Your task to perform on an android device: snooze an email in the gmail app Image 0: 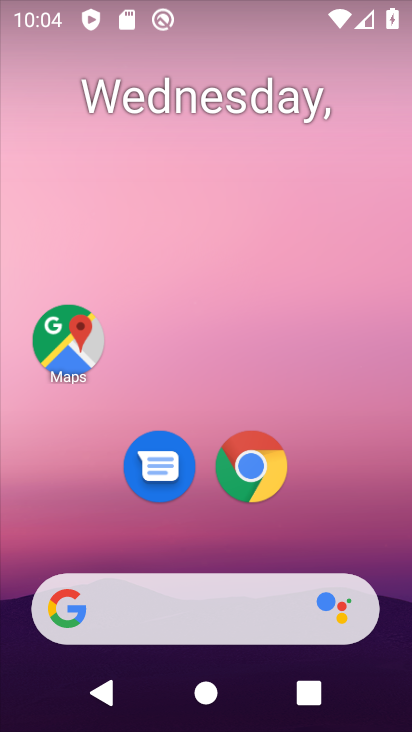
Step 0: drag from (229, 725) to (256, 88)
Your task to perform on an android device: snooze an email in the gmail app Image 1: 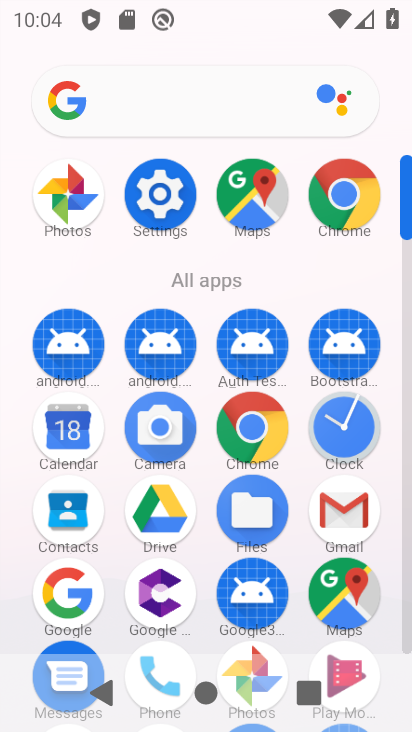
Step 1: click (341, 503)
Your task to perform on an android device: snooze an email in the gmail app Image 2: 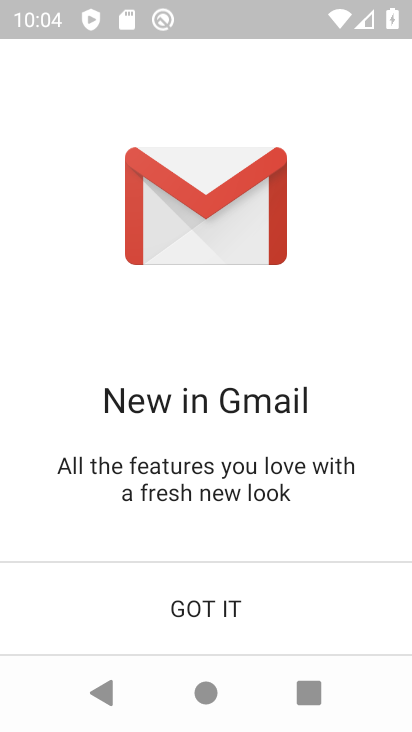
Step 2: click (220, 604)
Your task to perform on an android device: snooze an email in the gmail app Image 3: 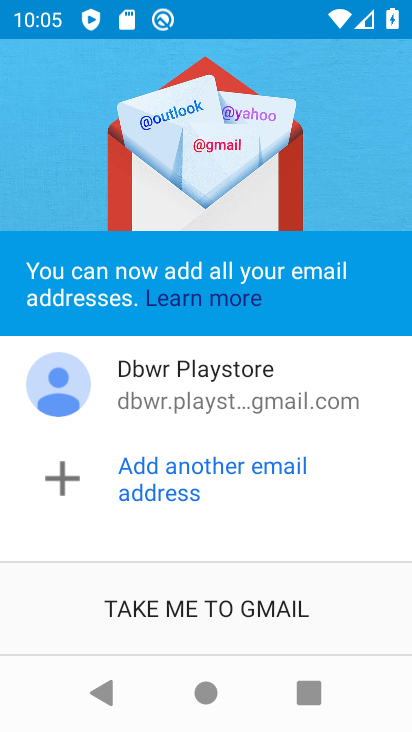
Step 3: click (215, 605)
Your task to perform on an android device: snooze an email in the gmail app Image 4: 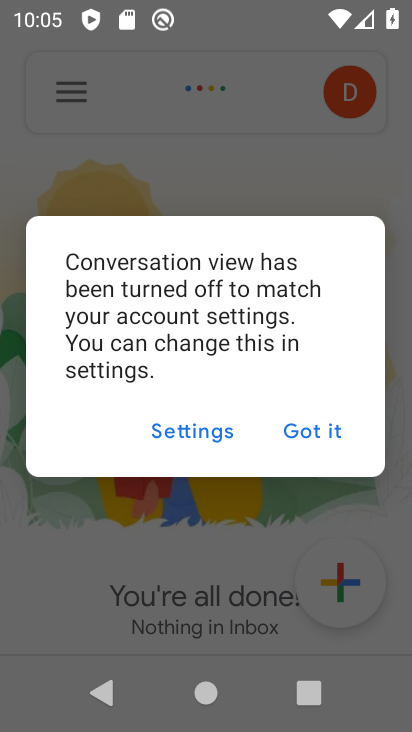
Step 4: click (302, 432)
Your task to perform on an android device: snooze an email in the gmail app Image 5: 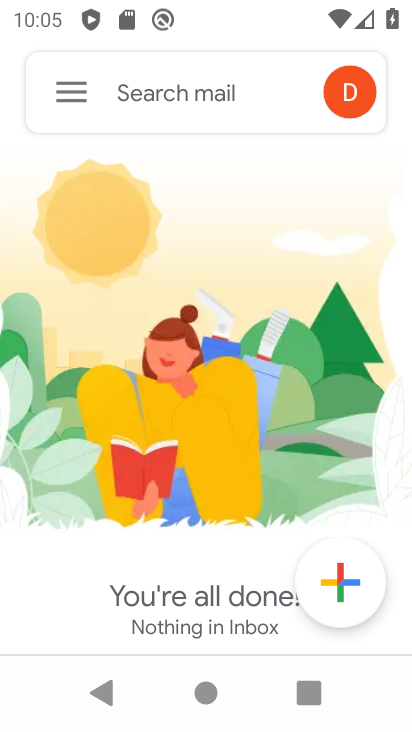
Step 5: click (55, 90)
Your task to perform on an android device: snooze an email in the gmail app Image 6: 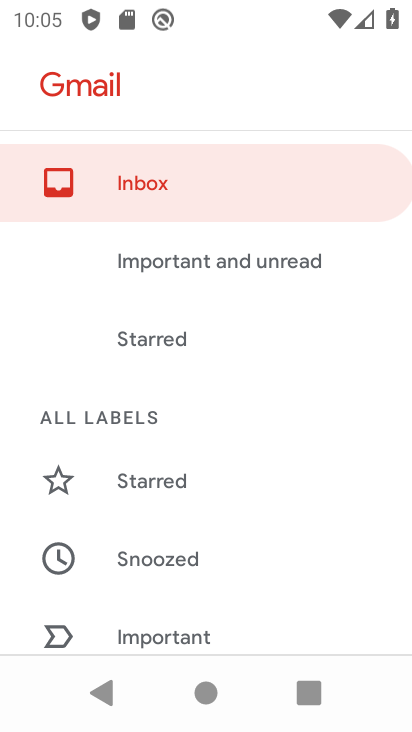
Step 6: click (138, 181)
Your task to perform on an android device: snooze an email in the gmail app Image 7: 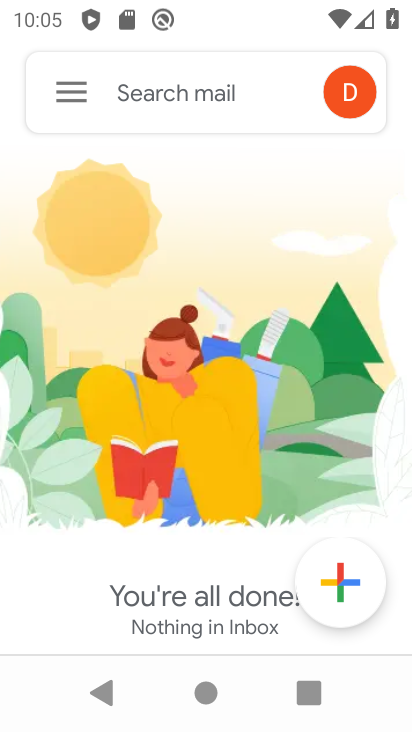
Step 7: task complete